Your task to perform on an android device: Open accessibility settings Image 0: 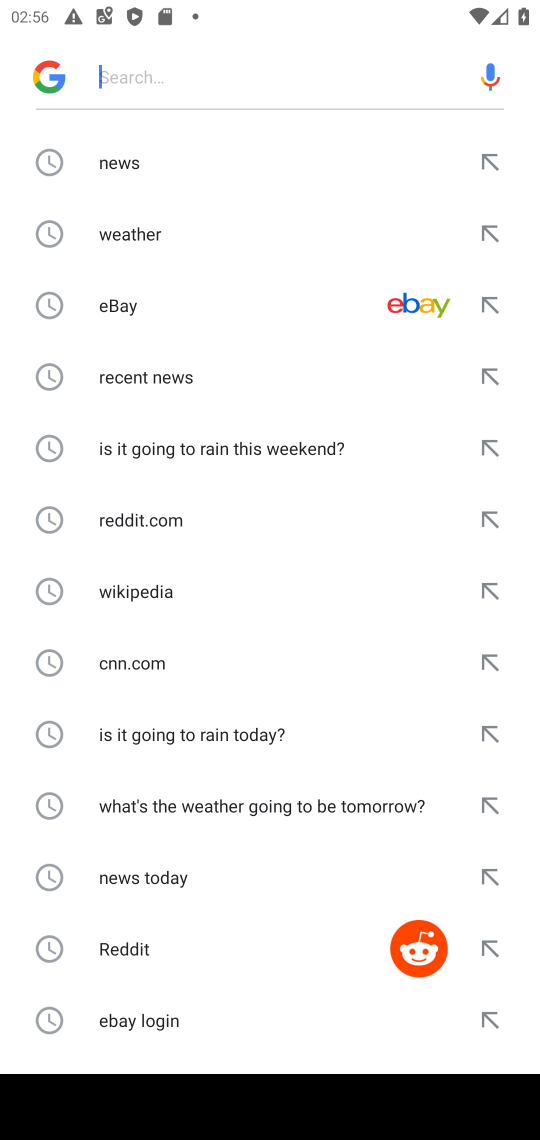
Step 0: press home button
Your task to perform on an android device: Open accessibility settings Image 1: 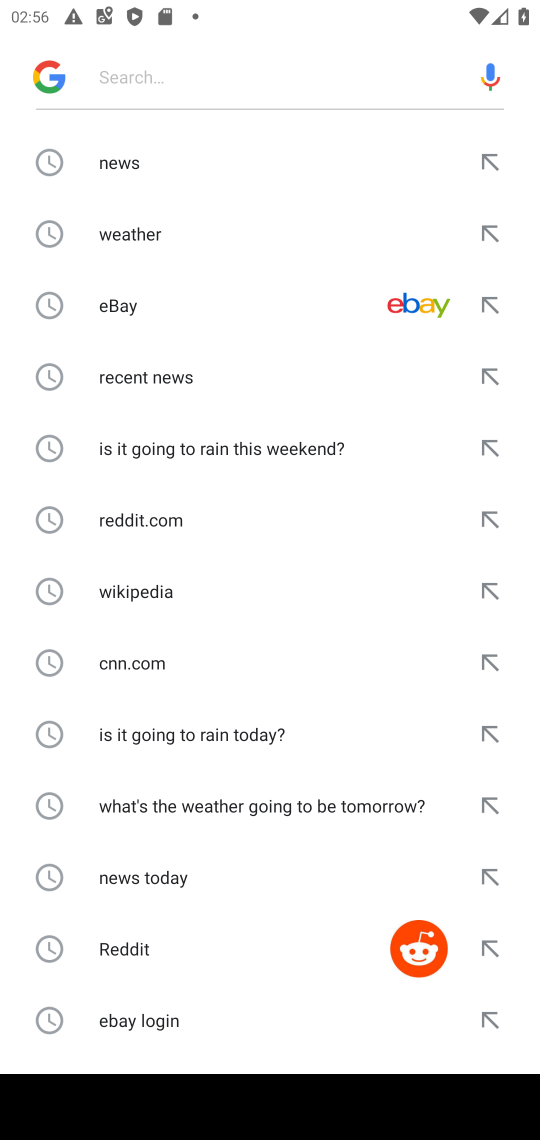
Step 1: press home button
Your task to perform on an android device: Open accessibility settings Image 2: 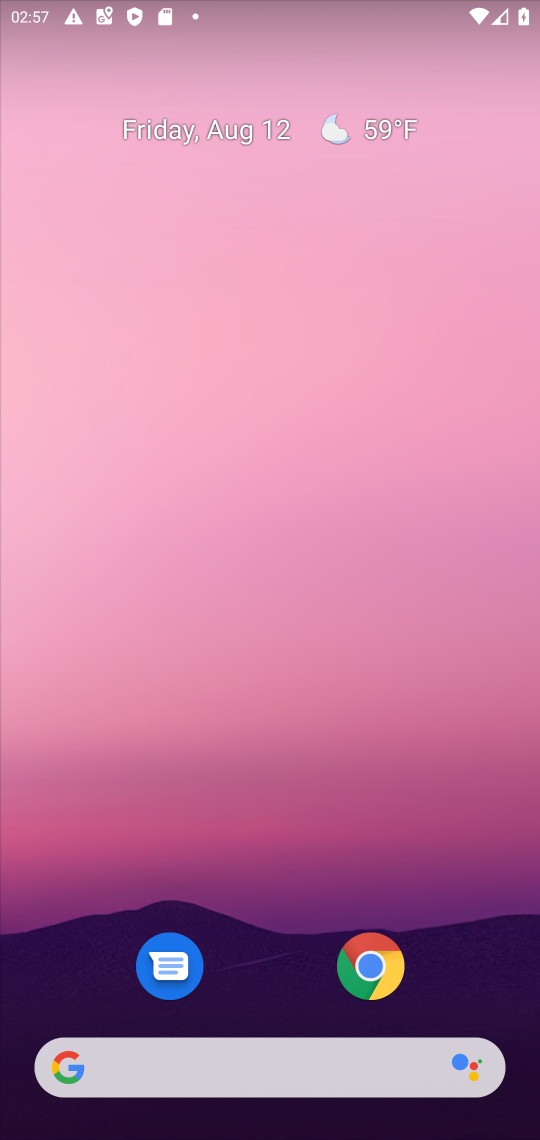
Step 2: drag from (263, 918) to (366, 74)
Your task to perform on an android device: Open accessibility settings Image 3: 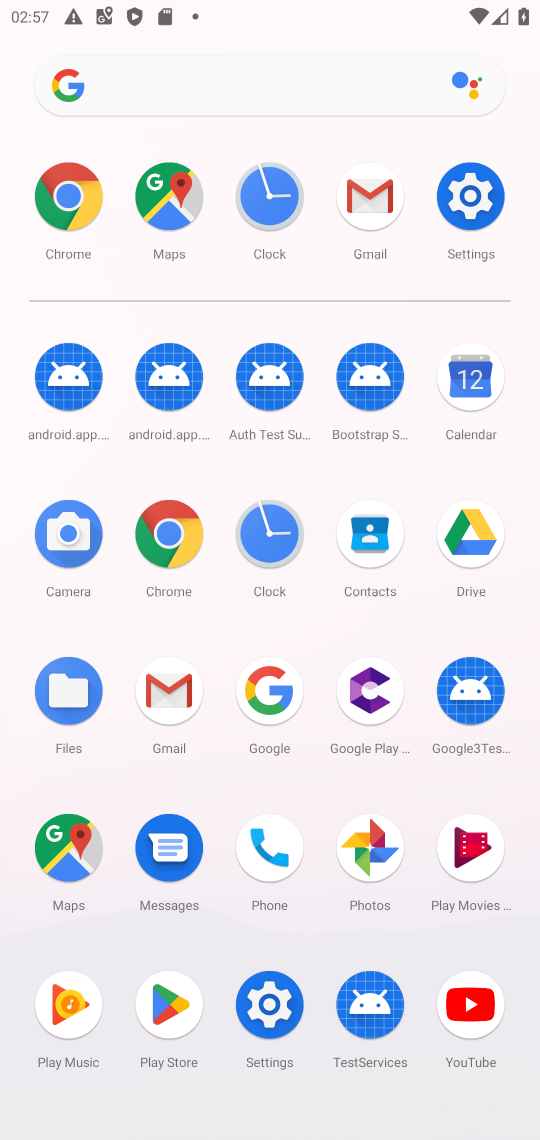
Step 3: click (278, 995)
Your task to perform on an android device: Open accessibility settings Image 4: 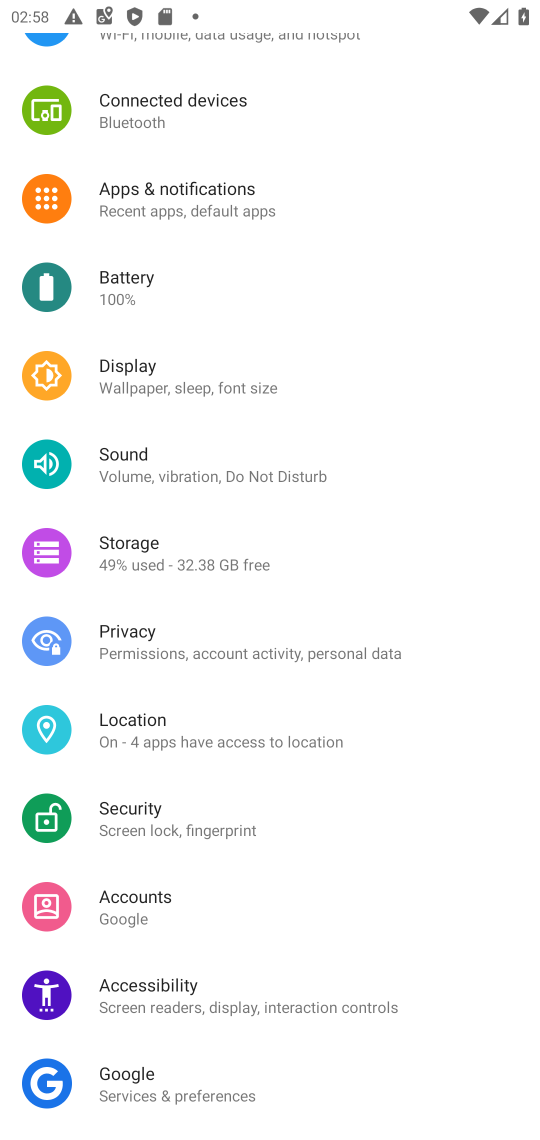
Step 4: click (212, 1012)
Your task to perform on an android device: Open accessibility settings Image 5: 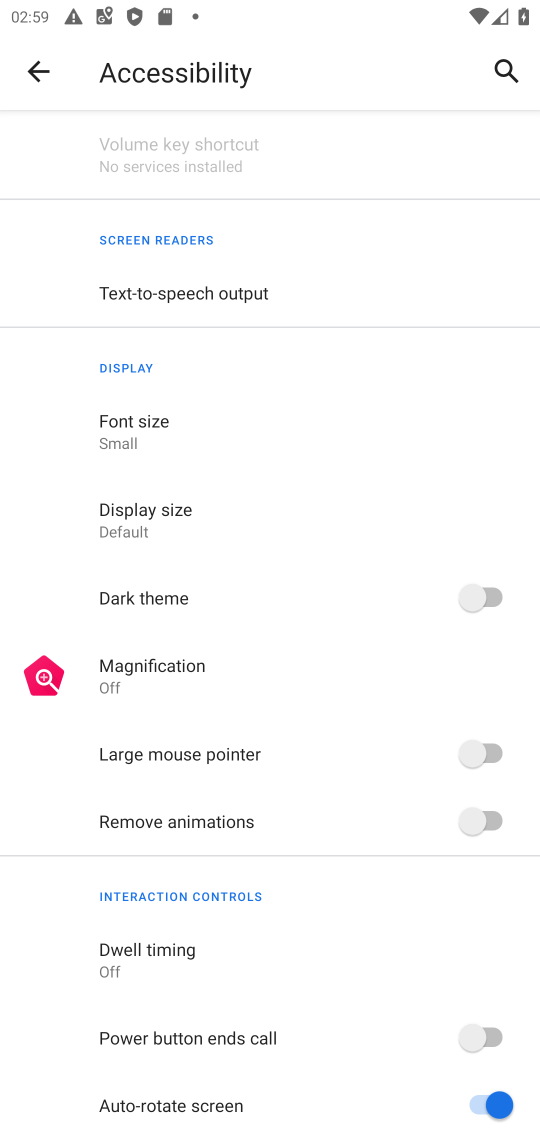
Step 5: task complete